Your task to perform on an android device: Open calendar and show me the second week of next month Image 0: 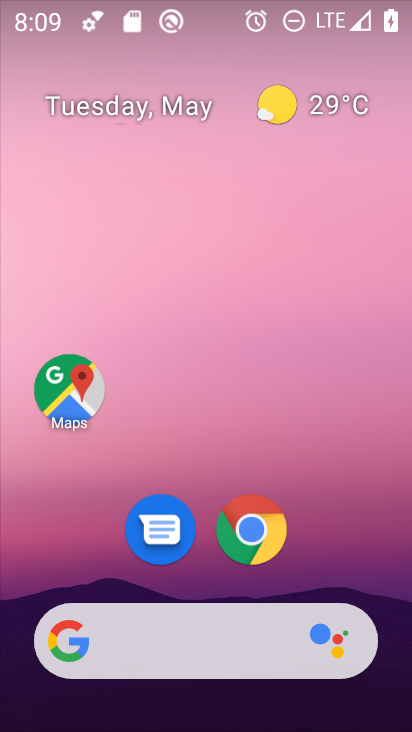
Step 0: drag from (387, 630) to (237, 86)
Your task to perform on an android device: Open calendar and show me the second week of next month Image 1: 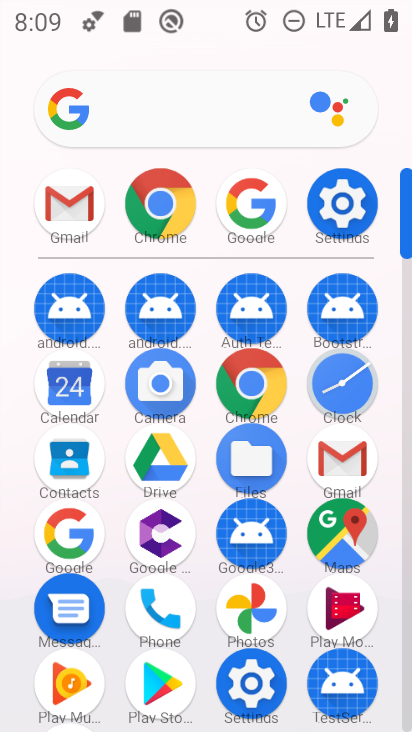
Step 1: click (55, 400)
Your task to perform on an android device: Open calendar and show me the second week of next month Image 2: 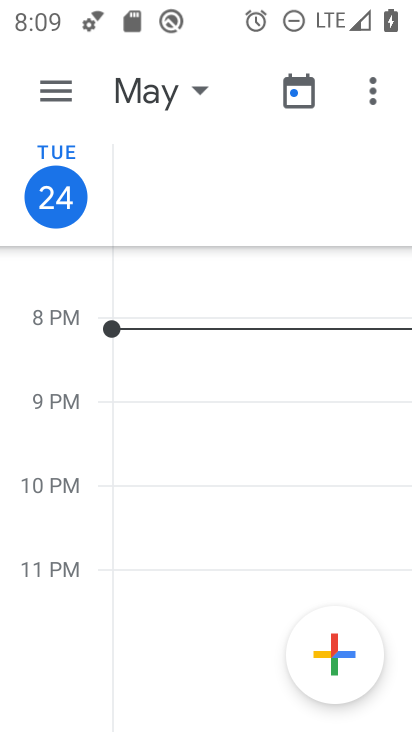
Step 2: click (138, 86)
Your task to perform on an android device: Open calendar and show me the second week of next month Image 3: 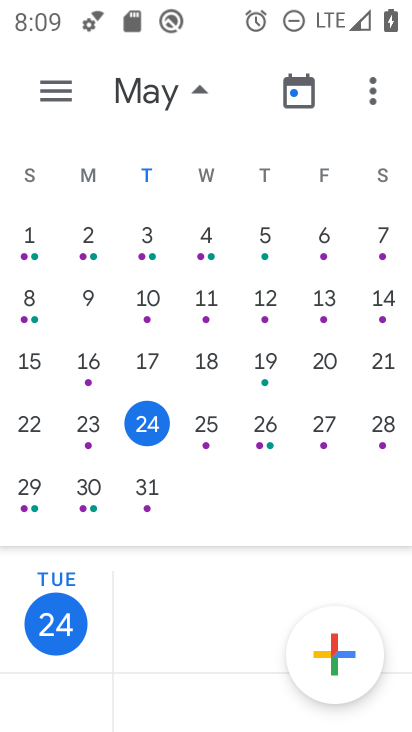
Step 3: drag from (390, 380) to (48, 388)
Your task to perform on an android device: Open calendar and show me the second week of next month Image 4: 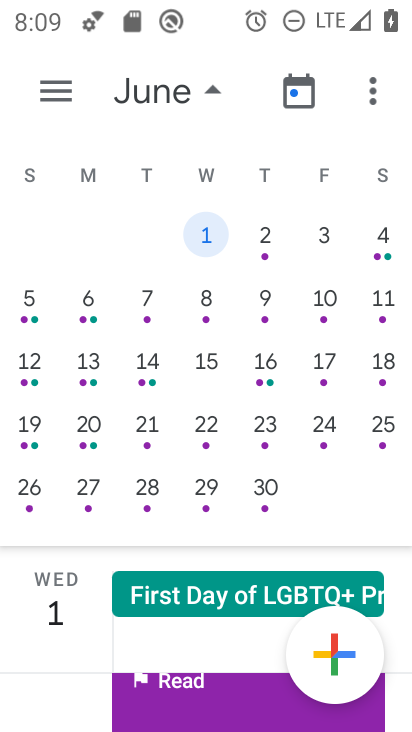
Step 4: click (87, 374)
Your task to perform on an android device: Open calendar and show me the second week of next month Image 5: 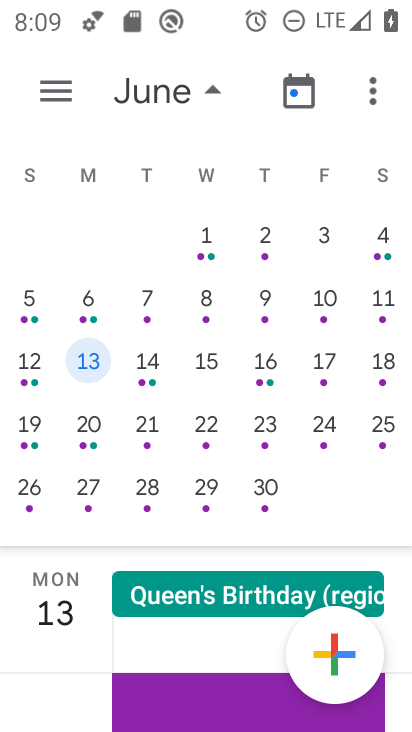
Step 5: task complete